Your task to perform on an android device: Do I have any events tomorrow? Image 0: 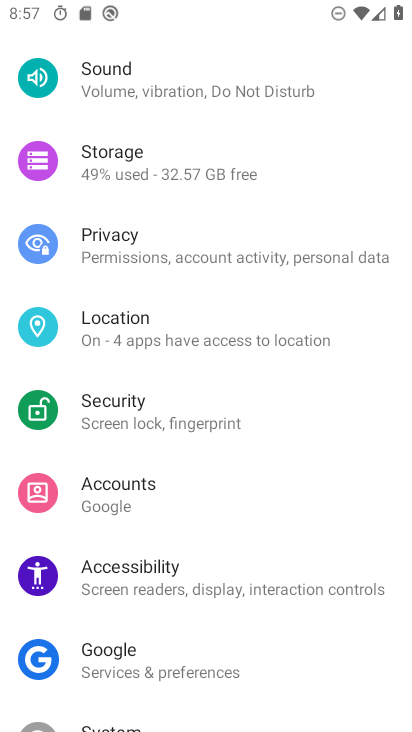
Step 0: press home button
Your task to perform on an android device: Do I have any events tomorrow? Image 1: 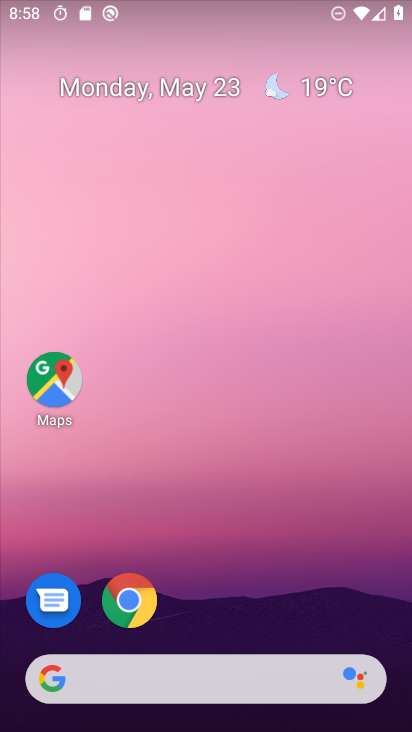
Step 1: drag from (44, 529) to (280, 88)
Your task to perform on an android device: Do I have any events tomorrow? Image 2: 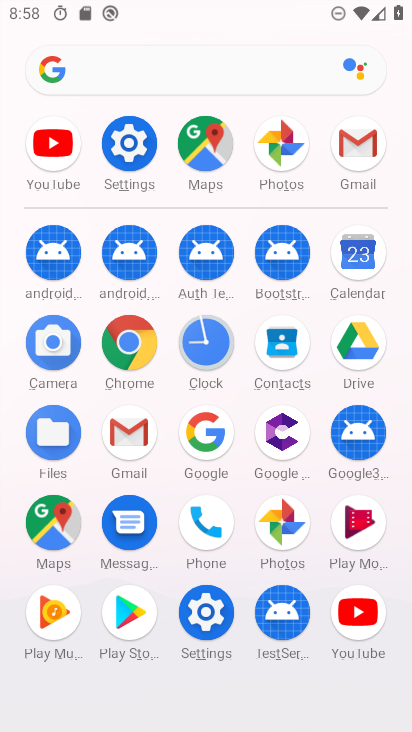
Step 2: click (350, 260)
Your task to perform on an android device: Do I have any events tomorrow? Image 3: 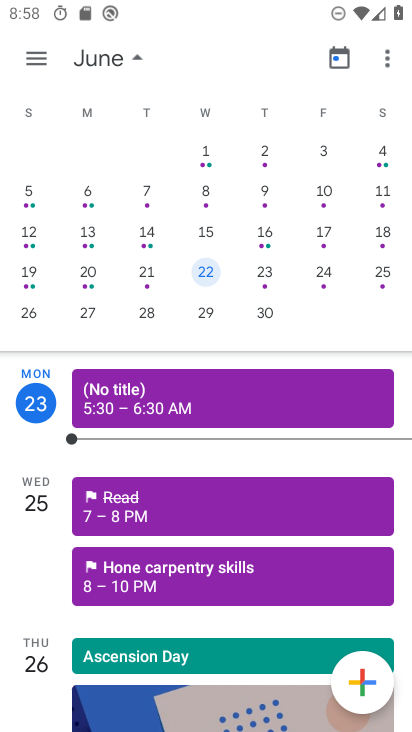
Step 3: drag from (33, 267) to (407, 459)
Your task to perform on an android device: Do I have any events tomorrow? Image 4: 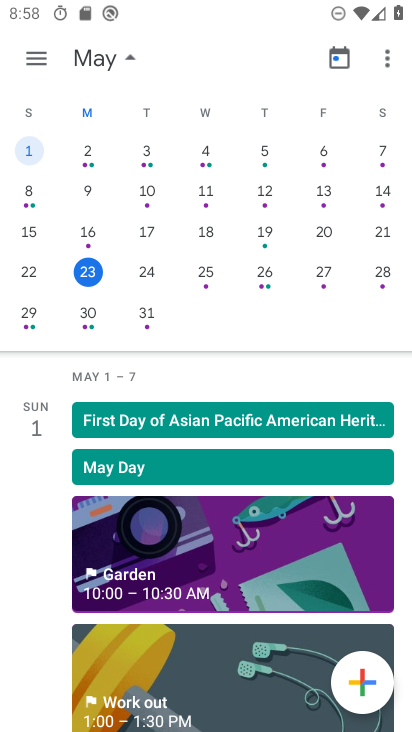
Step 4: click (157, 270)
Your task to perform on an android device: Do I have any events tomorrow? Image 5: 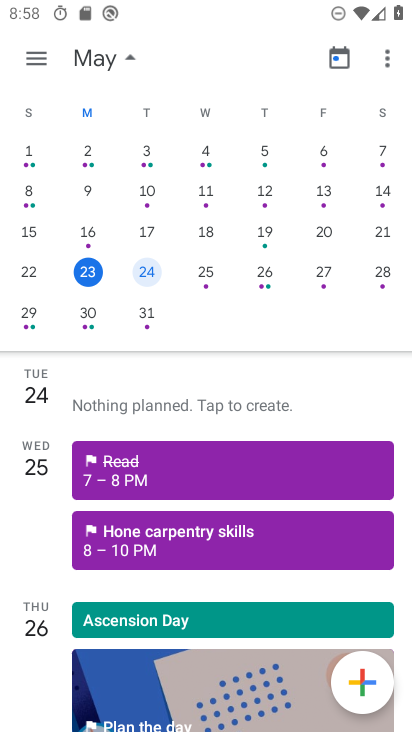
Step 5: task complete